Your task to perform on an android device: Search for pizza restaurants on Maps Image 0: 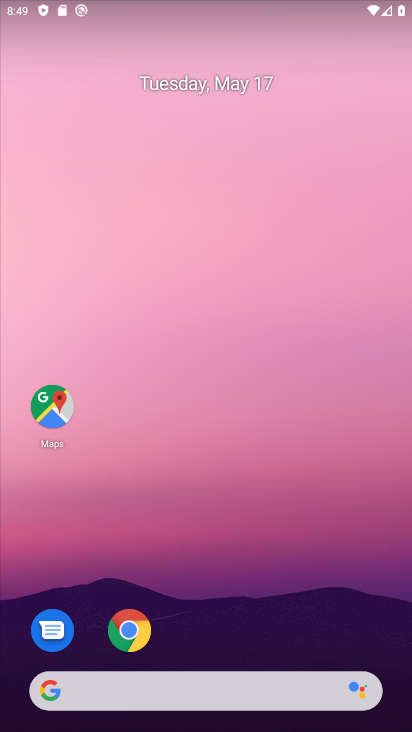
Step 0: click (52, 416)
Your task to perform on an android device: Search for pizza restaurants on Maps Image 1: 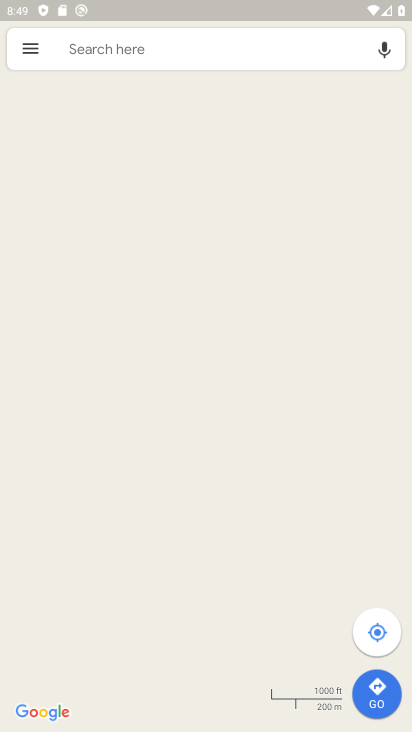
Step 1: click (203, 52)
Your task to perform on an android device: Search for pizza restaurants on Maps Image 2: 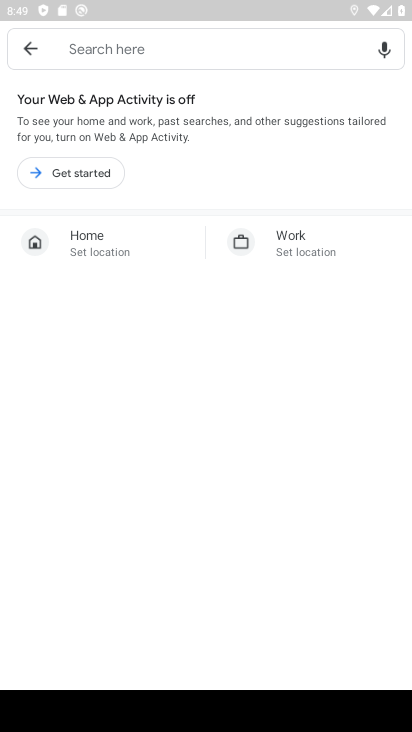
Step 2: click (90, 48)
Your task to perform on an android device: Search for pizza restaurants on Maps Image 3: 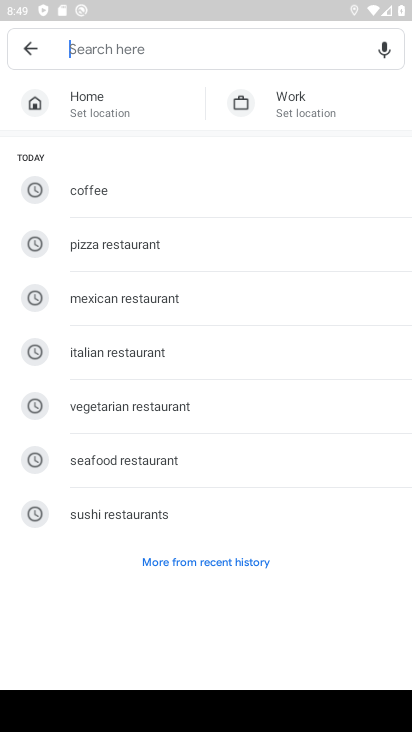
Step 3: click (106, 242)
Your task to perform on an android device: Search for pizza restaurants on Maps Image 4: 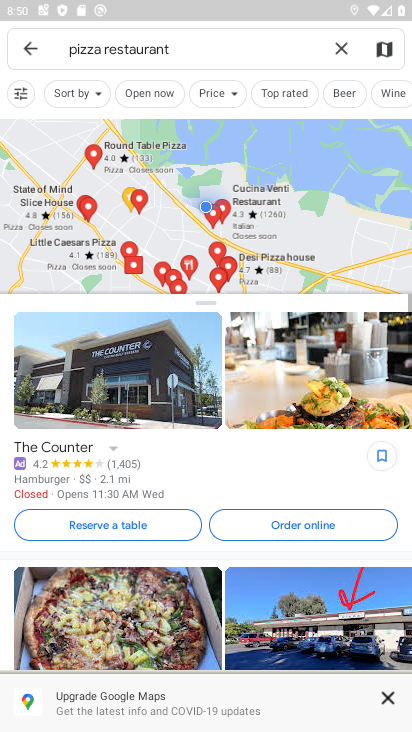
Step 4: task complete